Your task to perform on an android device: Open location settings Image 0: 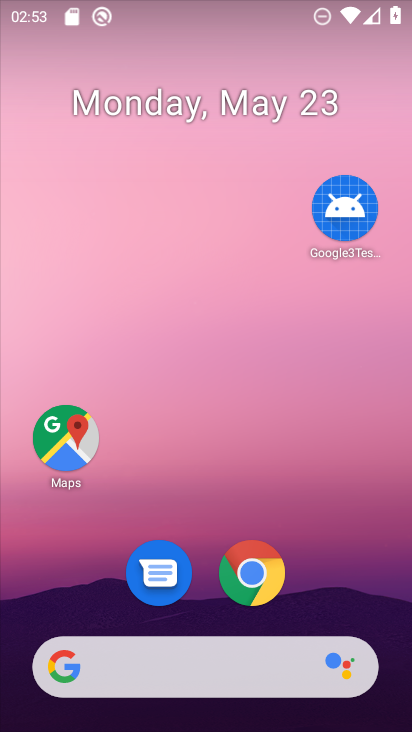
Step 0: drag from (331, 543) to (269, 85)
Your task to perform on an android device: Open location settings Image 1: 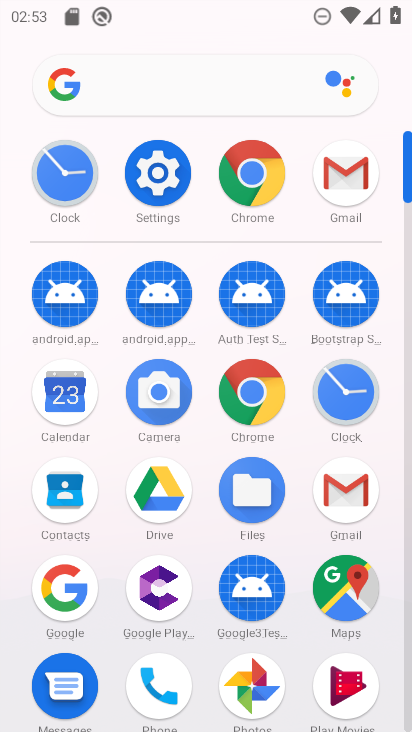
Step 1: click (155, 190)
Your task to perform on an android device: Open location settings Image 2: 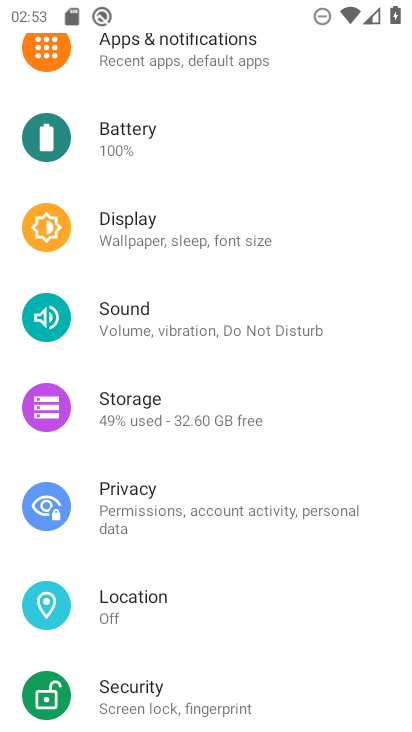
Step 2: click (167, 596)
Your task to perform on an android device: Open location settings Image 3: 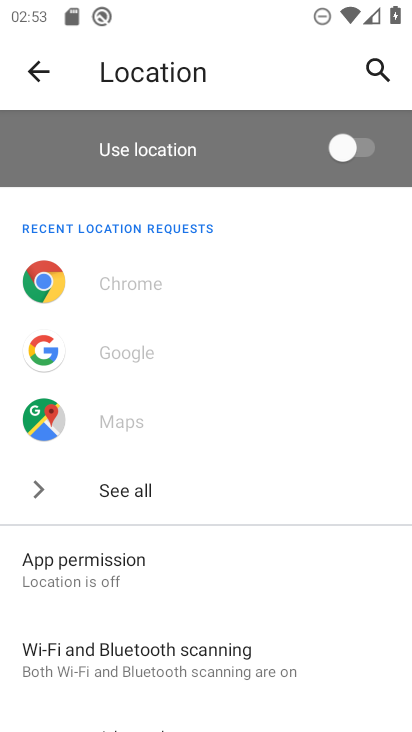
Step 3: drag from (272, 617) to (245, 251)
Your task to perform on an android device: Open location settings Image 4: 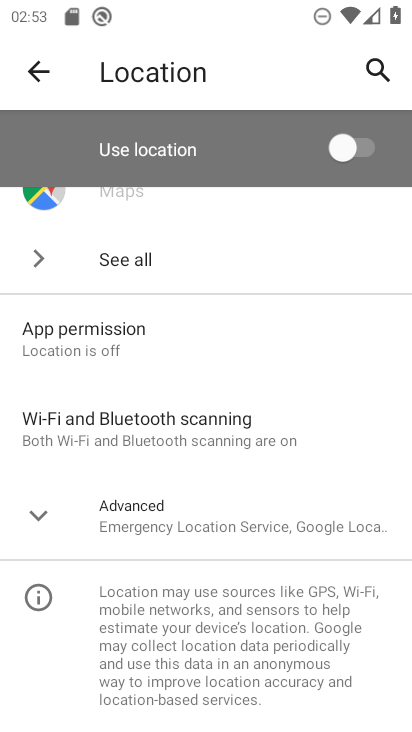
Step 4: click (151, 539)
Your task to perform on an android device: Open location settings Image 5: 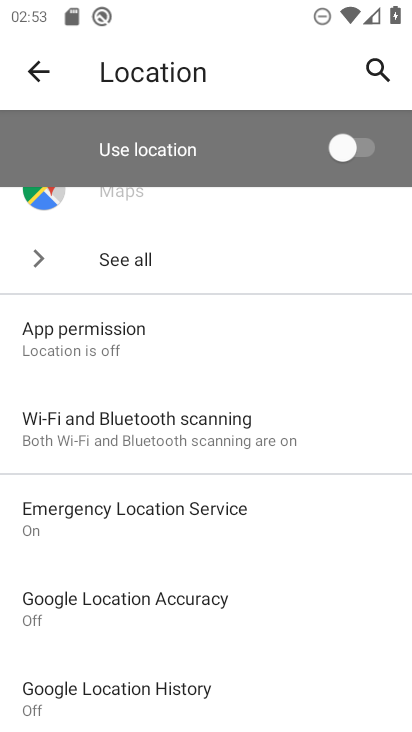
Step 5: task complete